Your task to perform on an android device: change notification settings in the gmail app Image 0: 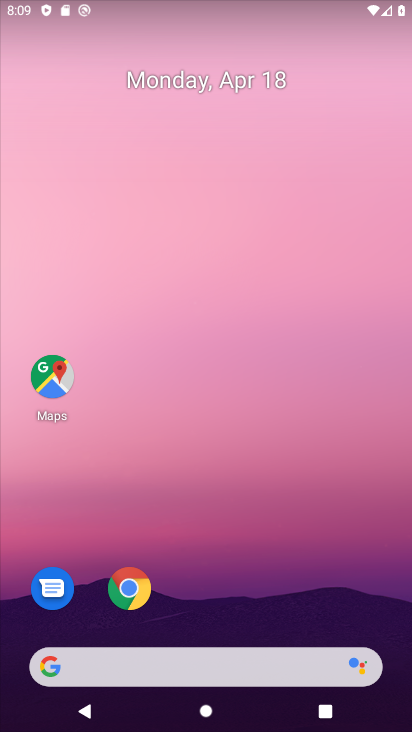
Step 0: drag from (229, 497) to (264, 23)
Your task to perform on an android device: change notification settings in the gmail app Image 1: 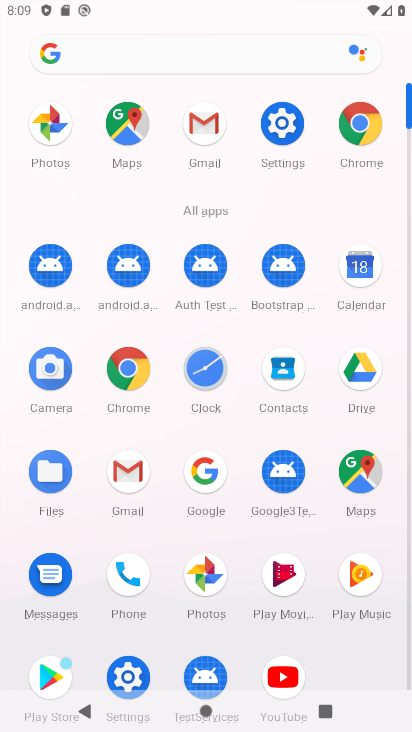
Step 1: click (202, 129)
Your task to perform on an android device: change notification settings in the gmail app Image 2: 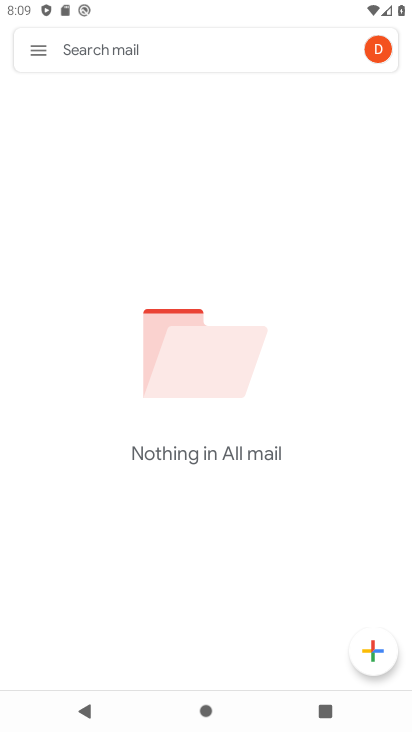
Step 2: click (32, 46)
Your task to perform on an android device: change notification settings in the gmail app Image 3: 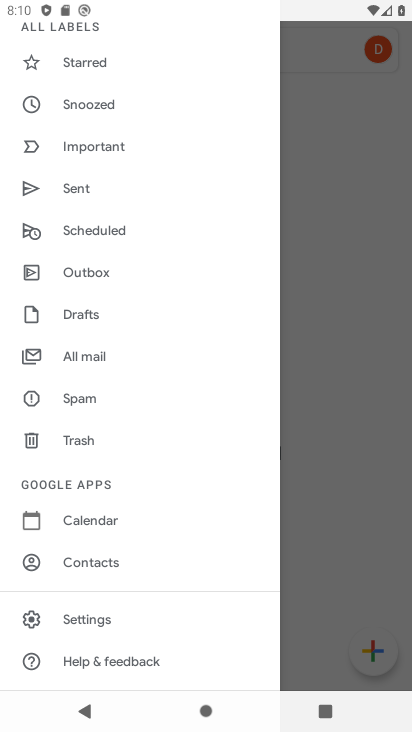
Step 3: click (93, 613)
Your task to perform on an android device: change notification settings in the gmail app Image 4: 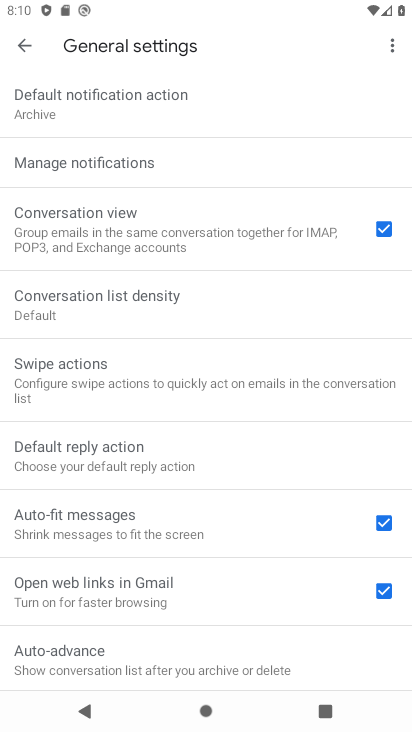
Step 4: click (89, 161)
Your task to perform on an android device: change notification settings in the gmail app Image 5: 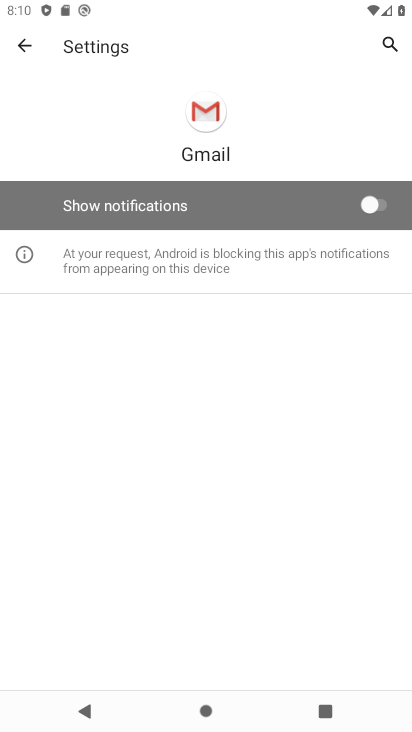
Step 5: click (364, 196)
Your task to perform on an android device: change notification settings in the gmail app Image 6: 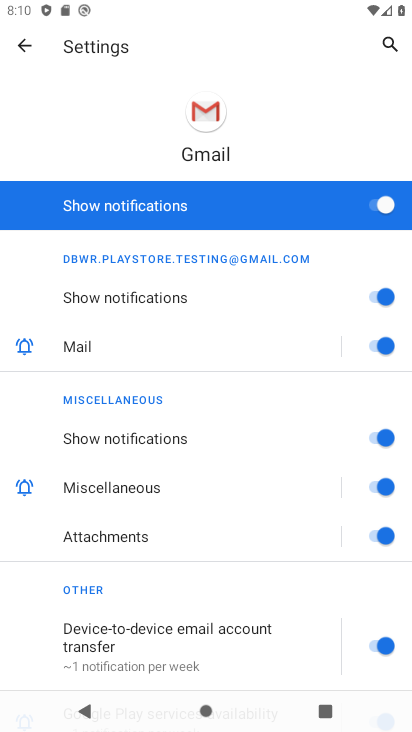
Step 6: task complete